Your task to perform on an android device: turn off picture-in-picture Image 0: 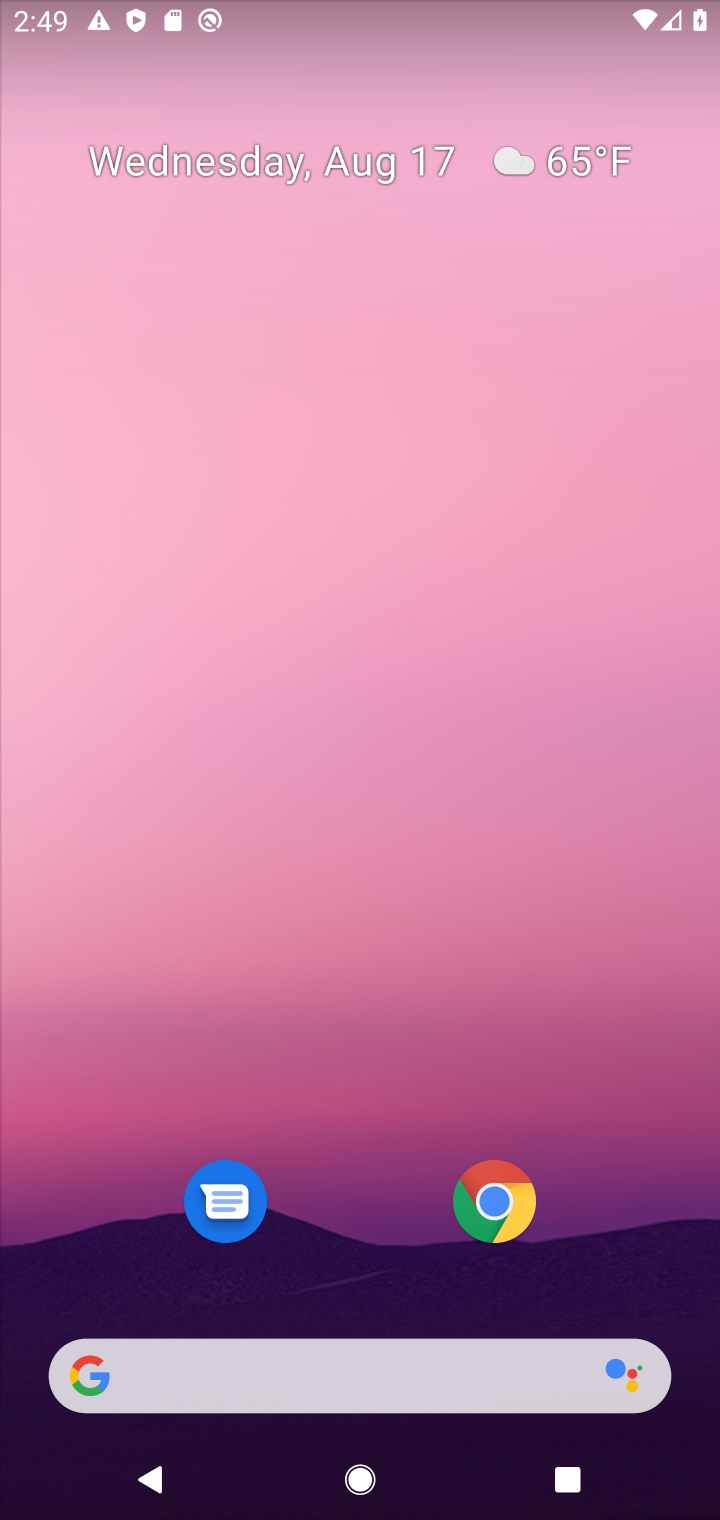
Step 0: drag from (509, 271) to (544, 42)
Your task to perform on an android device: turn off picture-in-picture Image 1: 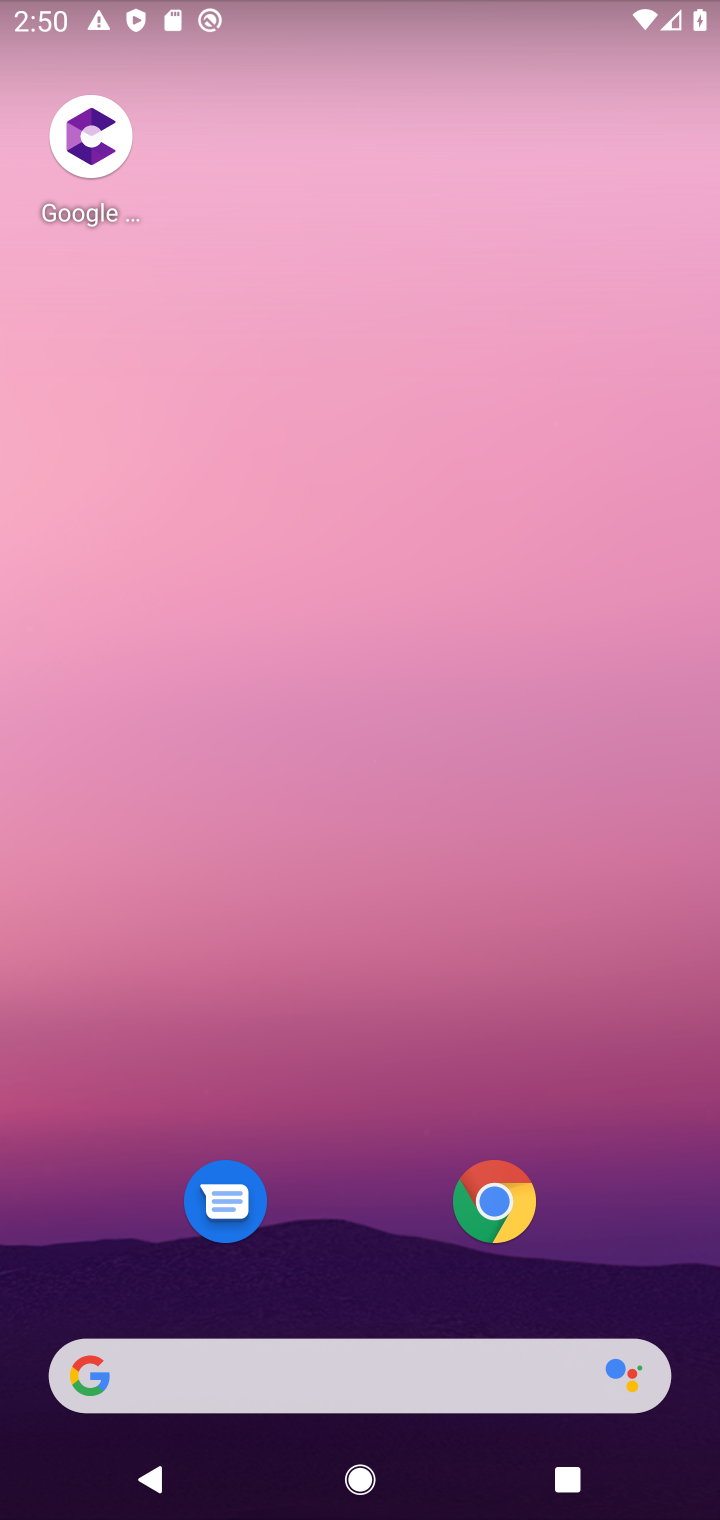
Step 1: drag from (339, 1281) to (620, 103)
Your task to perform on an android device: turn off picture-in-picture Image 2: 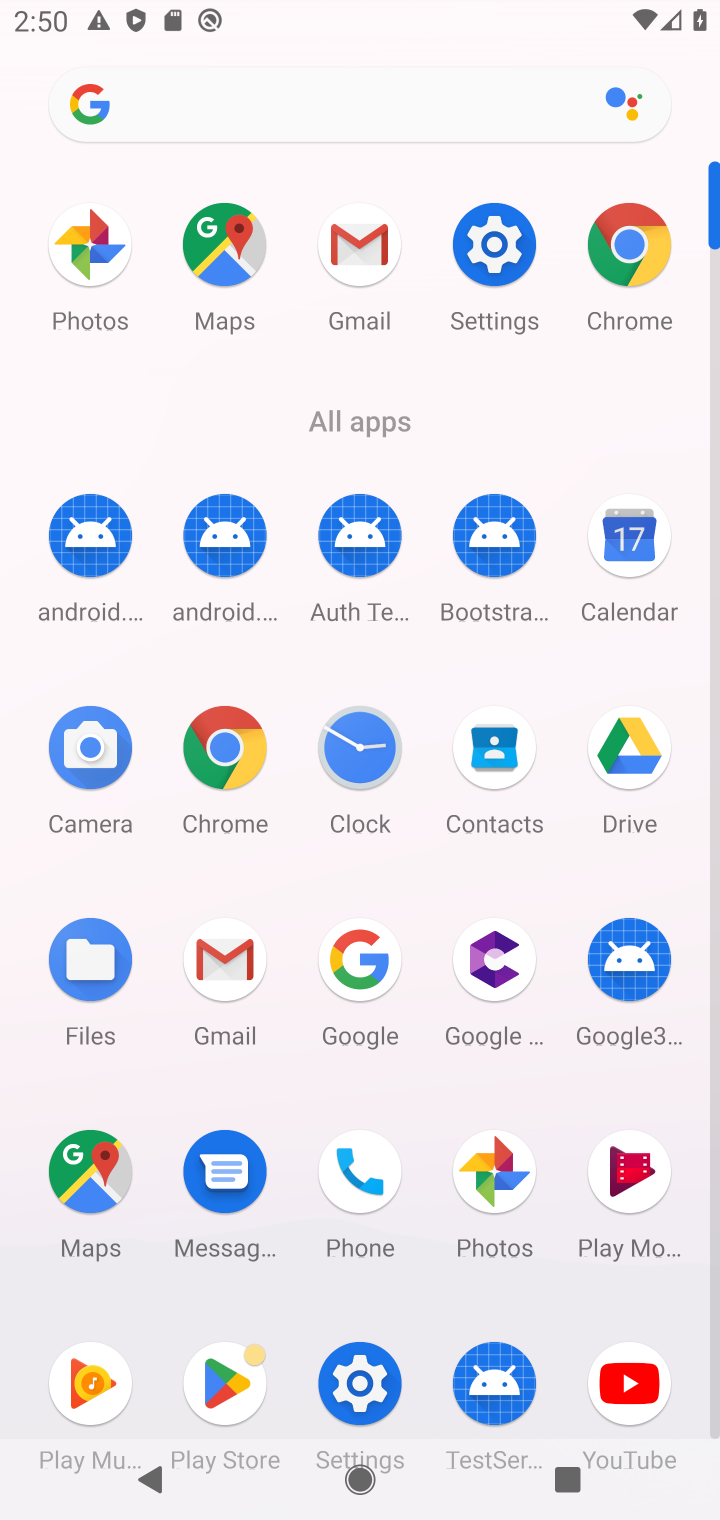
Step 2: click (507, 239)
Your task to perform on an android device: turn off picture-in-picture Image 3: 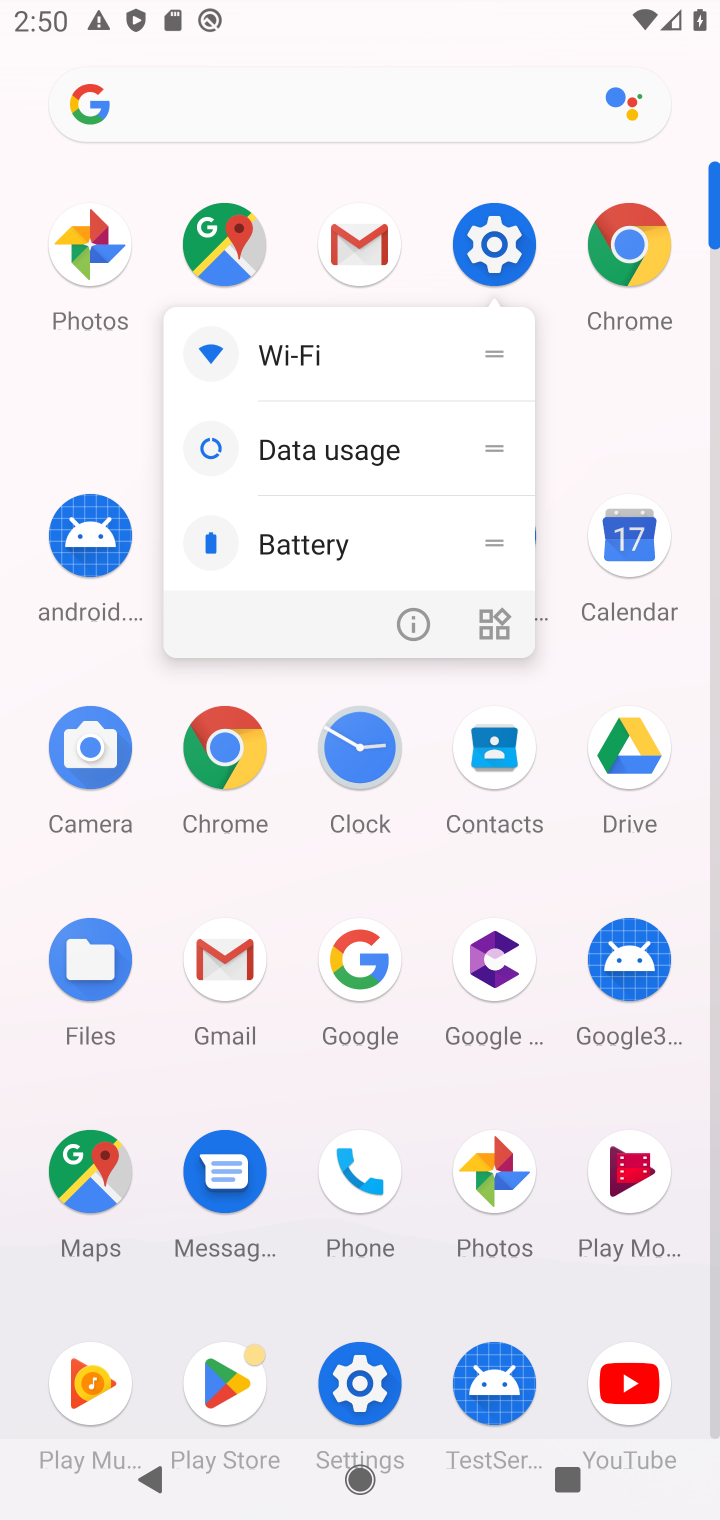
Step 3: click (491, 253)
Your task to perform on an android device: turn off picture-in-picture Image 4: 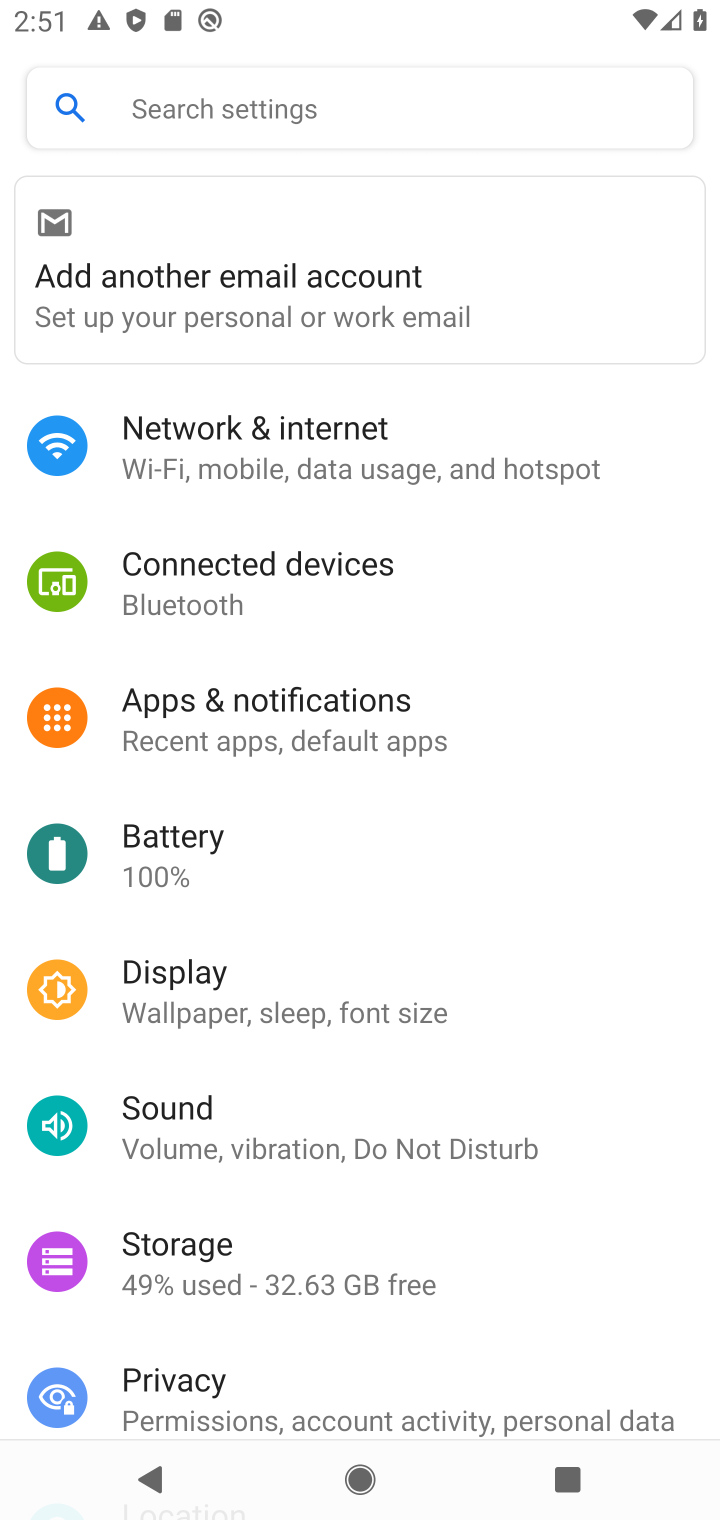
Step 4: click (363, 732)
Your task to perform on an android device: turn off picture-in-picture Image 5: 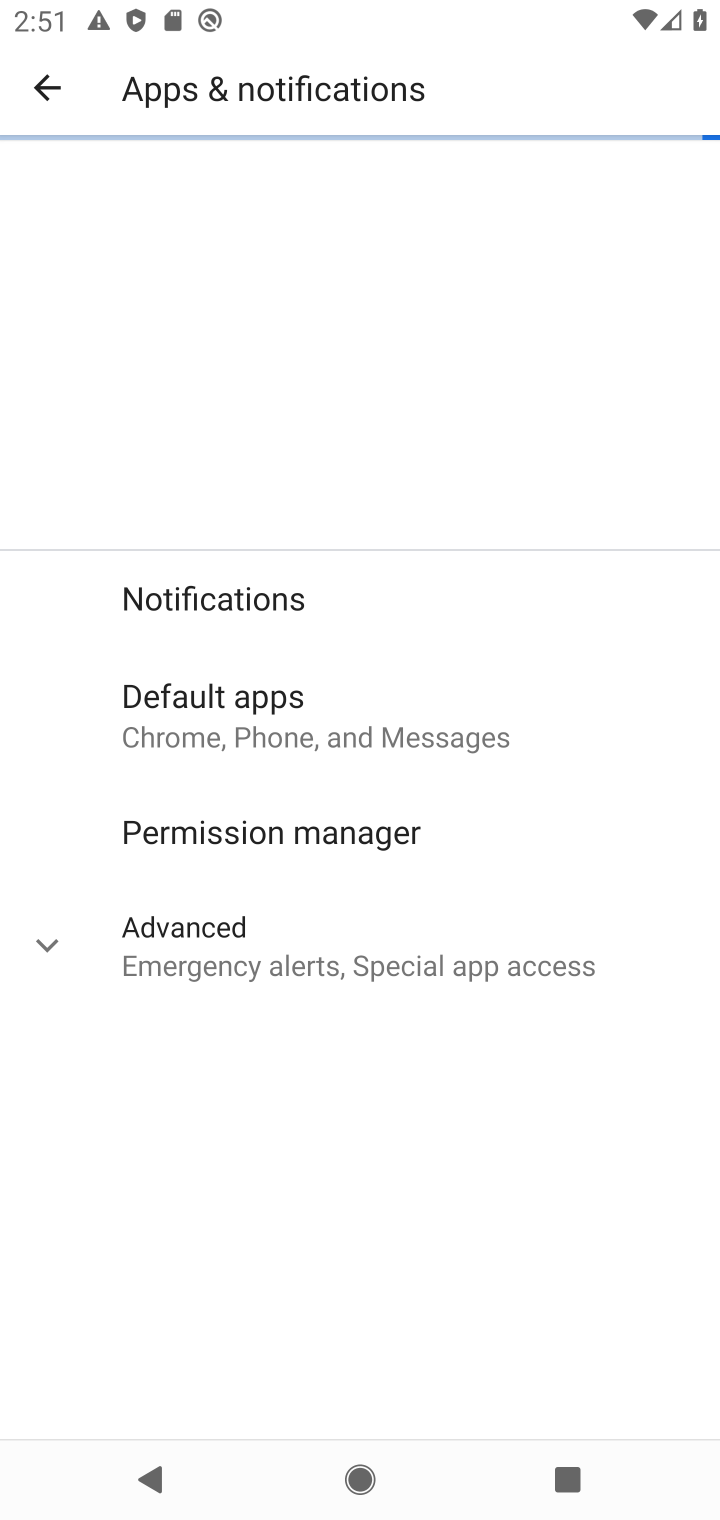
Step 5: click (231, 595)
Your task to perform on an android device: turn off picture-in-picture Image 6: 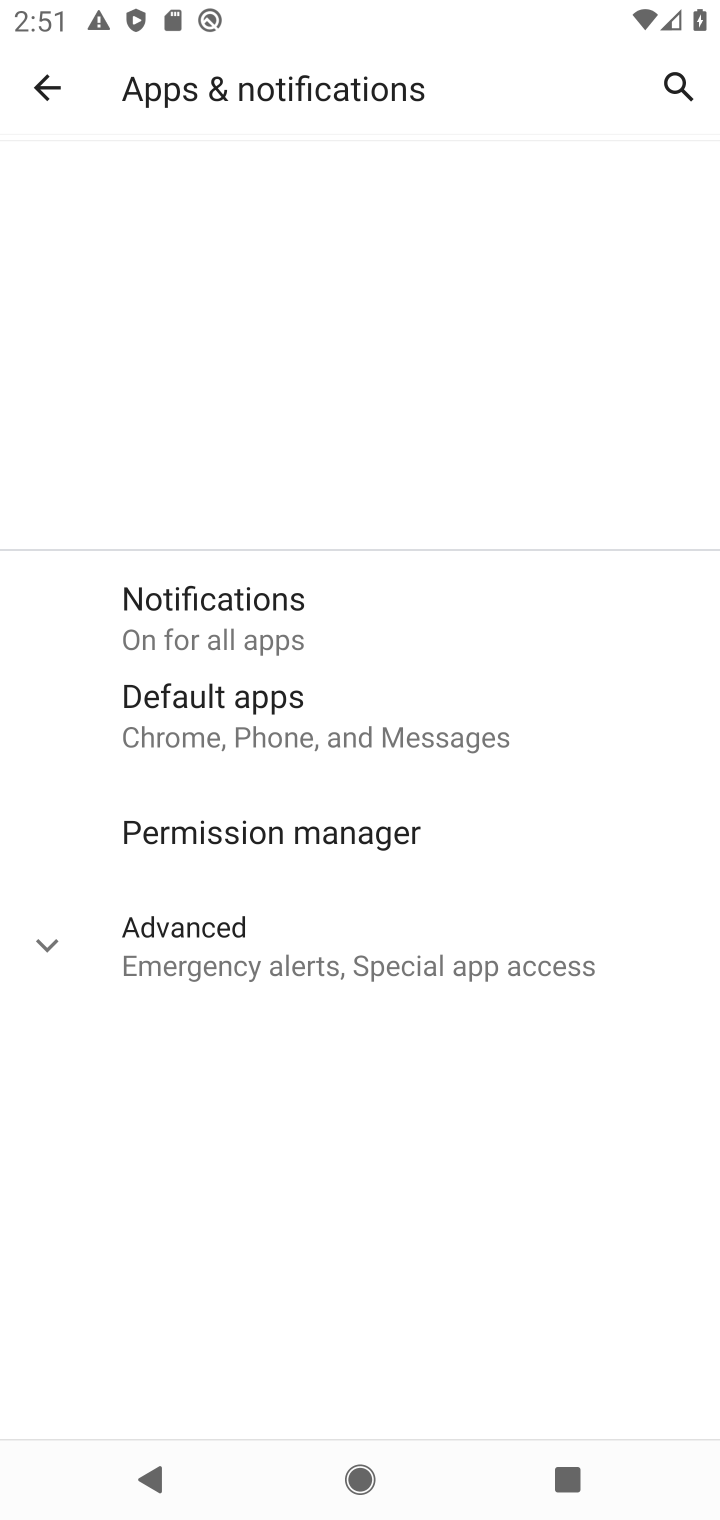
Step 6: click (361, 931)
Your task to perform on an android device: turn off picture-in-picture Image 7: 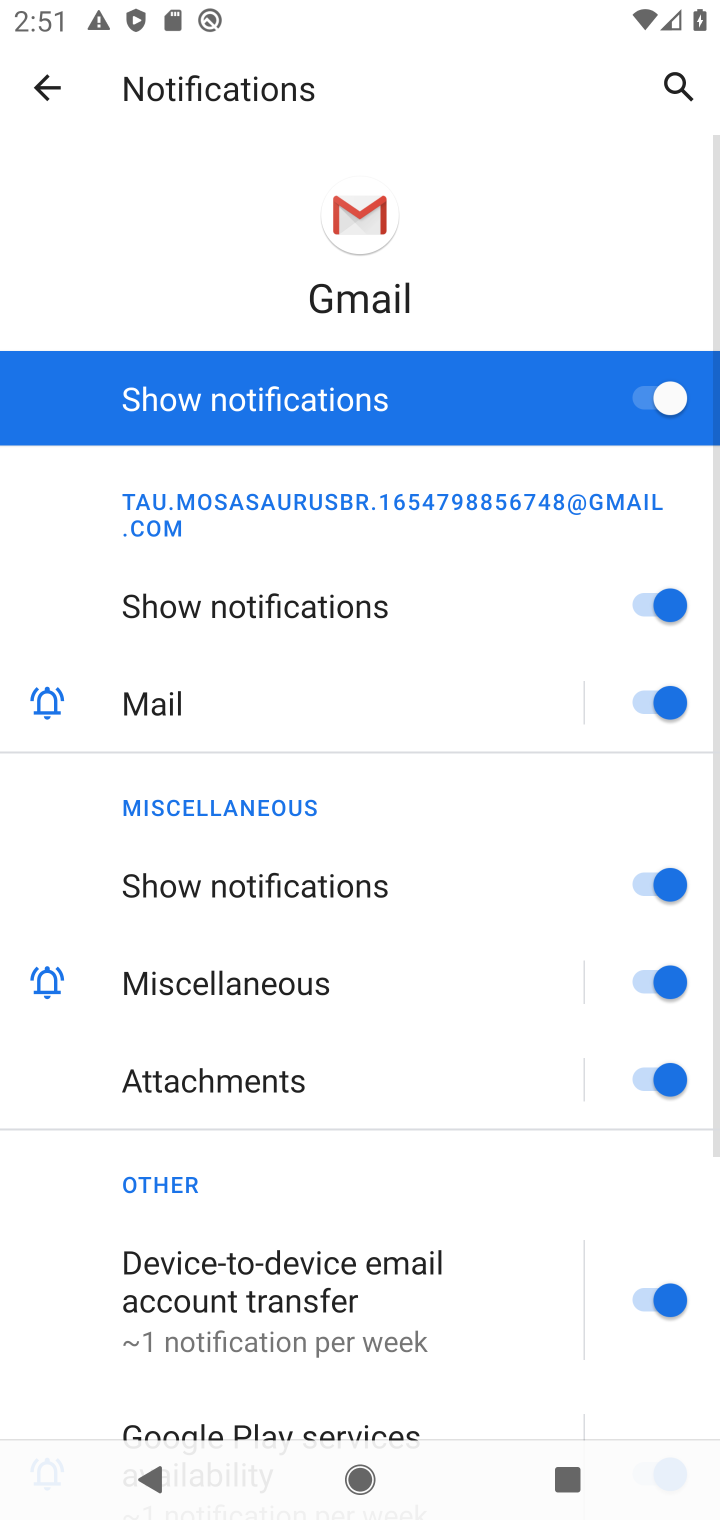
Step 7: press back button
Your task to perform on an android device: turn off picture-in-picture Image 8: 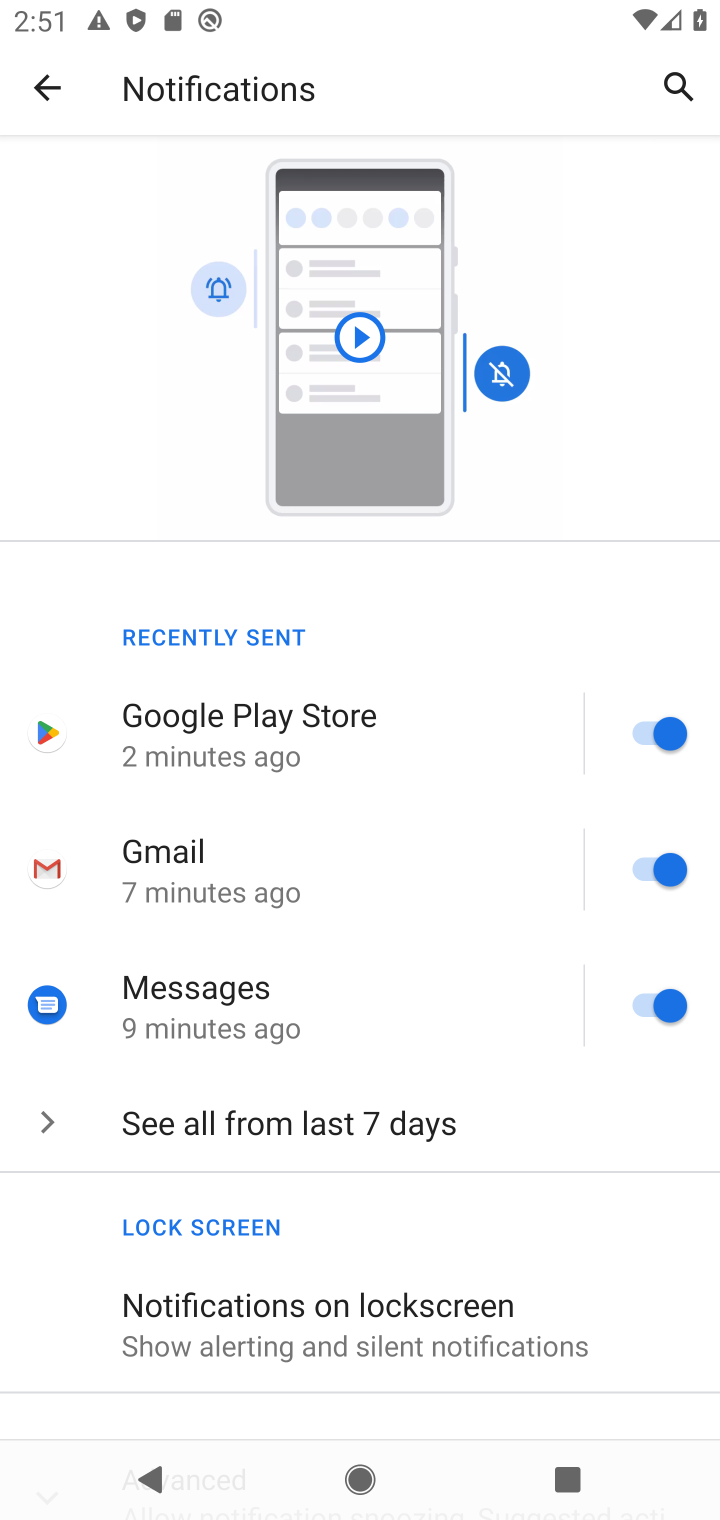
Step 8: drag from (283, 1106) to (438, 82)
Your task to perform on an android device: turn off picture-in-picture Image 9: 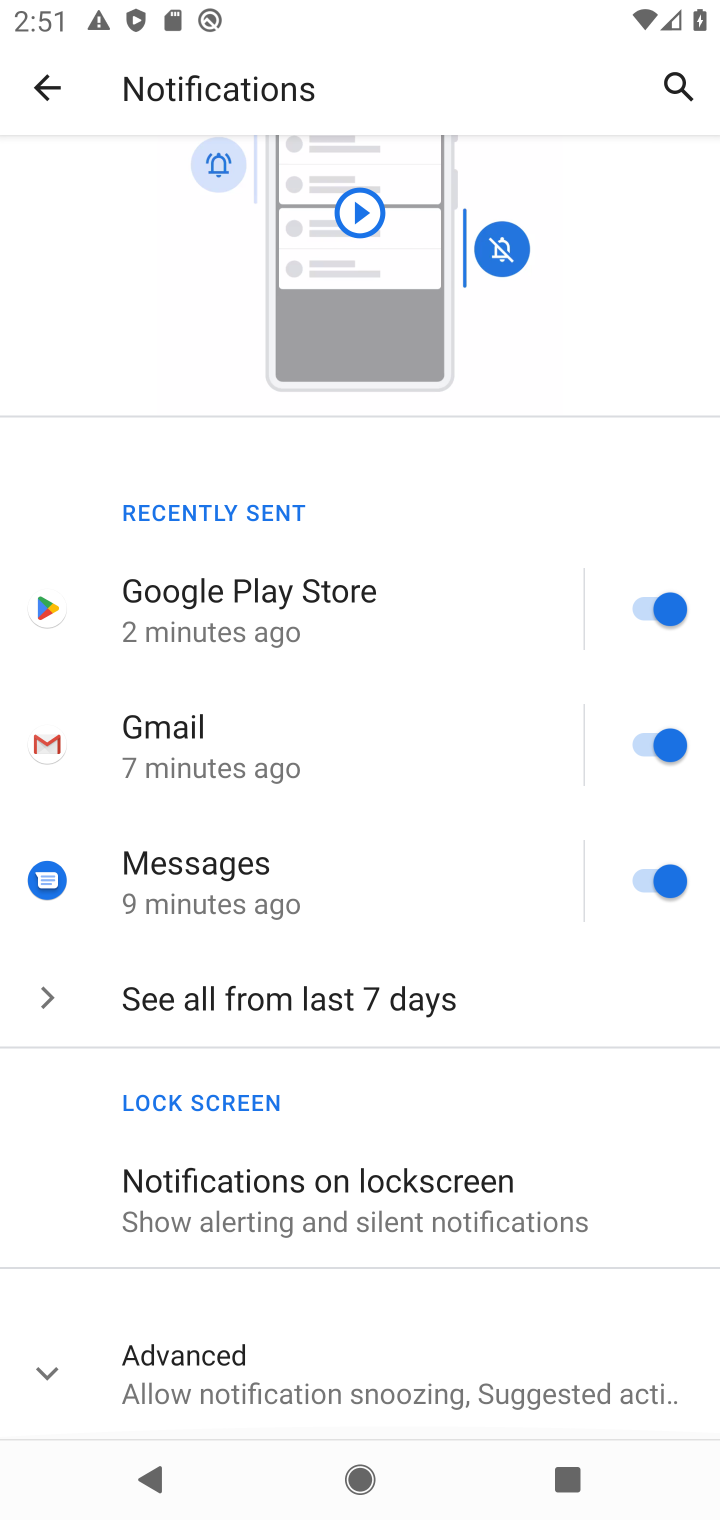
Step 9: click (364, 1371)
Your task to perform on an android device: turn off picture-in-picture Image 10: 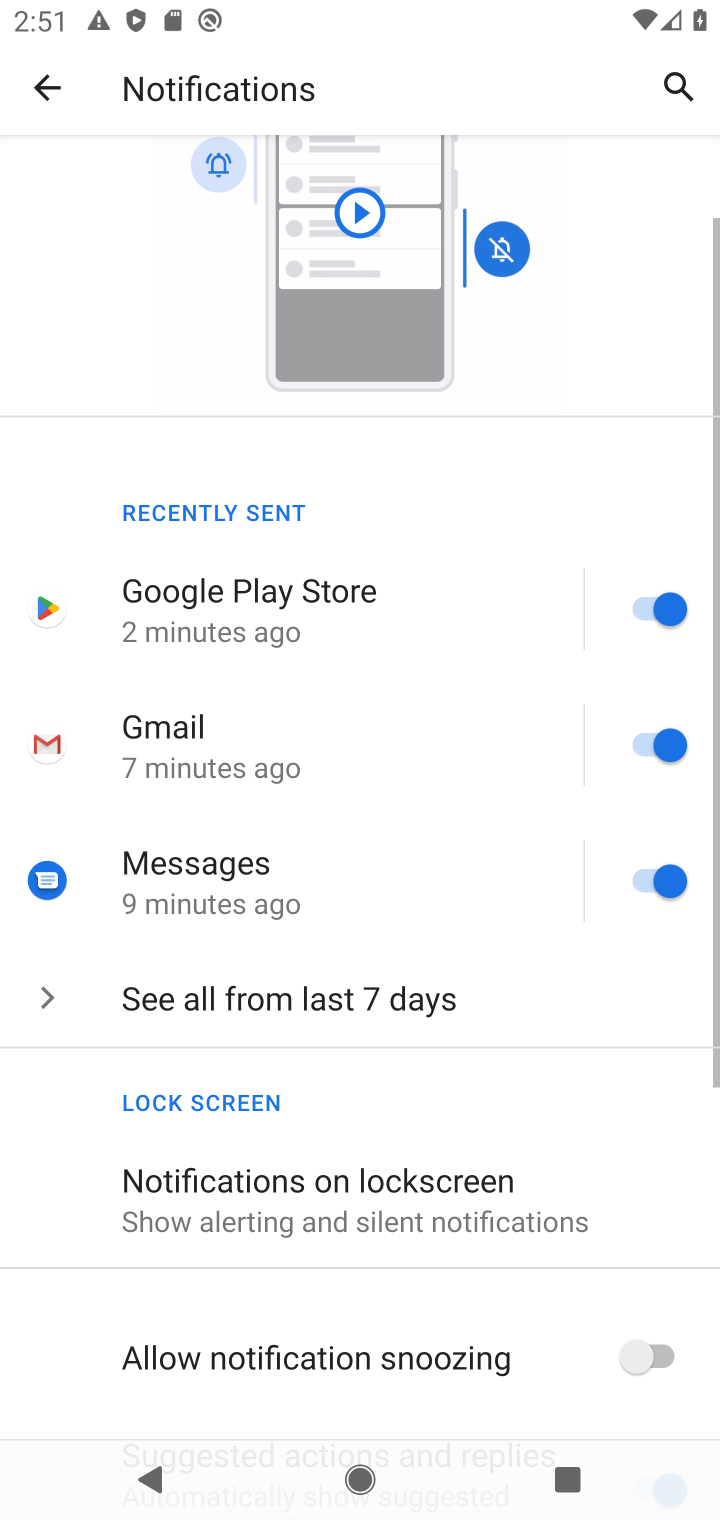
Step 10: drag from (368, 1268) to (480, 205)
Your task to perform on an android device: turn off picture-in-picture Image 11: 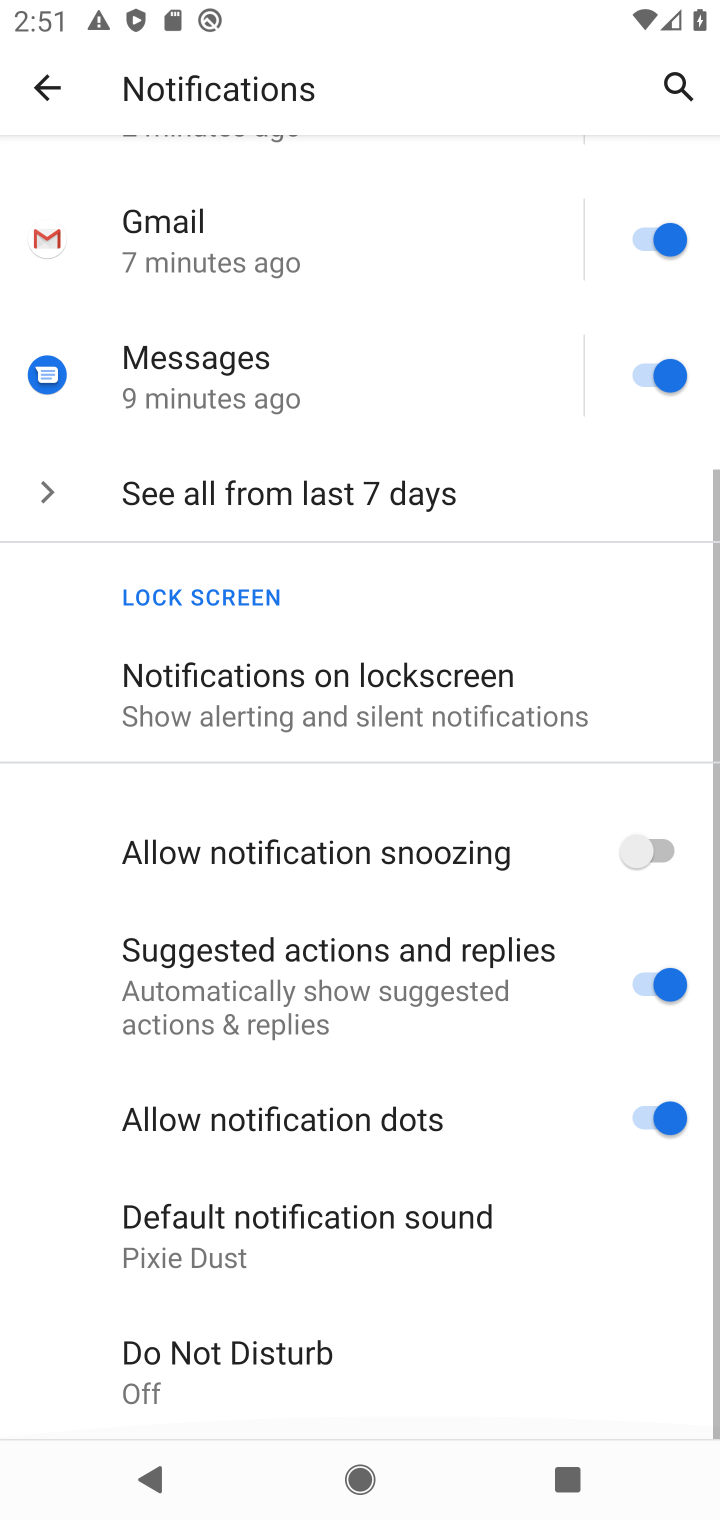
Step 11: drag from (399, 1232) to (505, 52)
Your task to perform on an android device: turn off picture-in-picture Image 12: 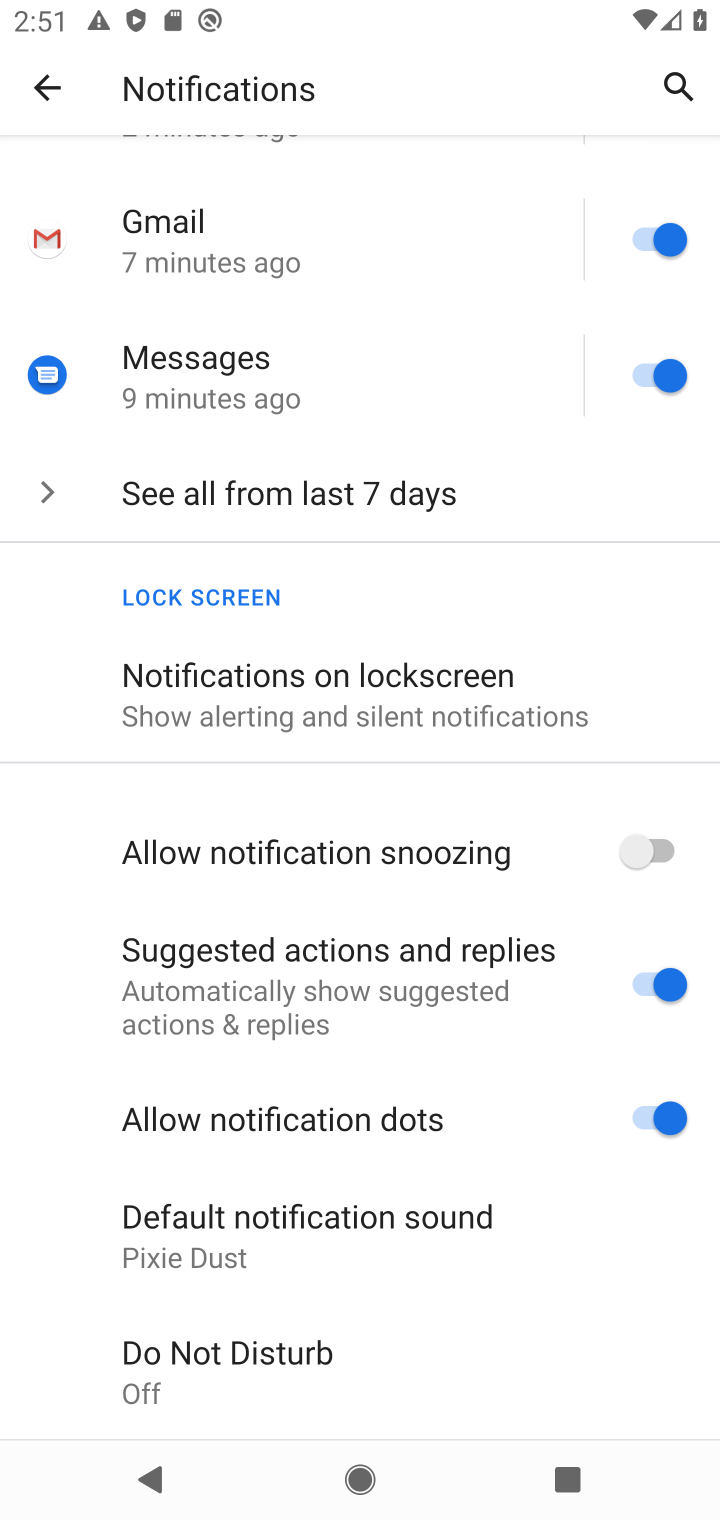
Step 12: press back button
Your task to perform on an android device: turn off picture-in-picture Image 13: 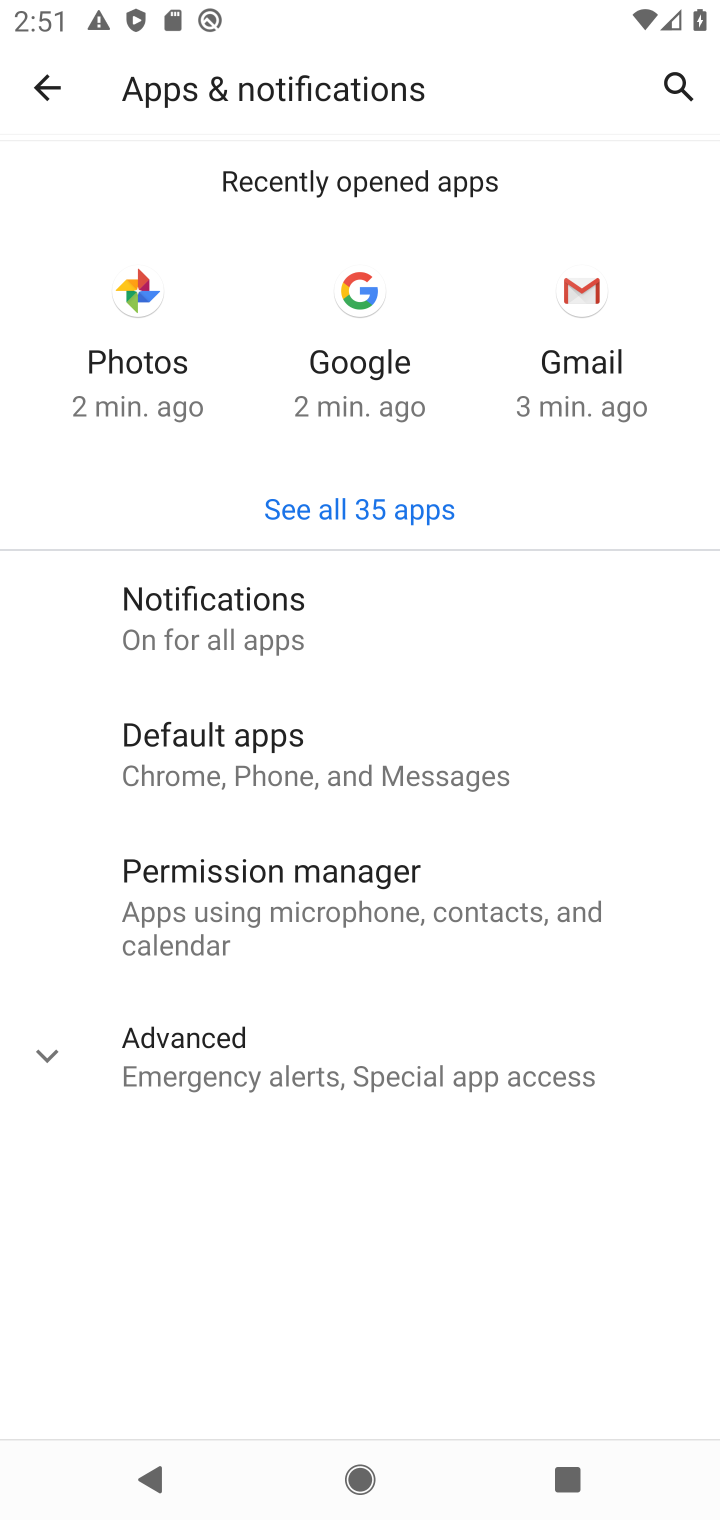
Step 13: click (239, 1105)
Your task to perform on an android device: turn off picture-in-picture Image 14: 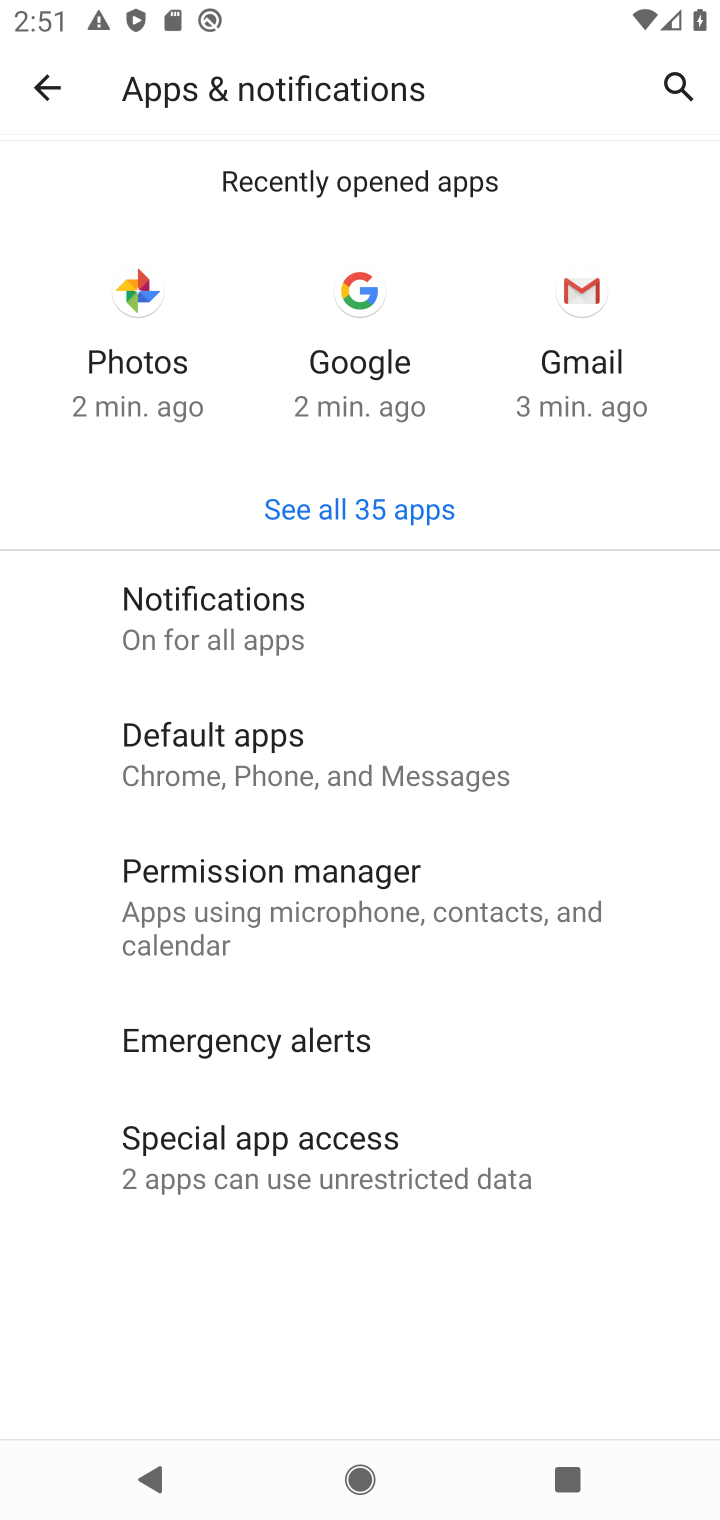
Step 14: click (249, 1129)
Your task to perform on an android device: turn off picture-in-picture Image 15: 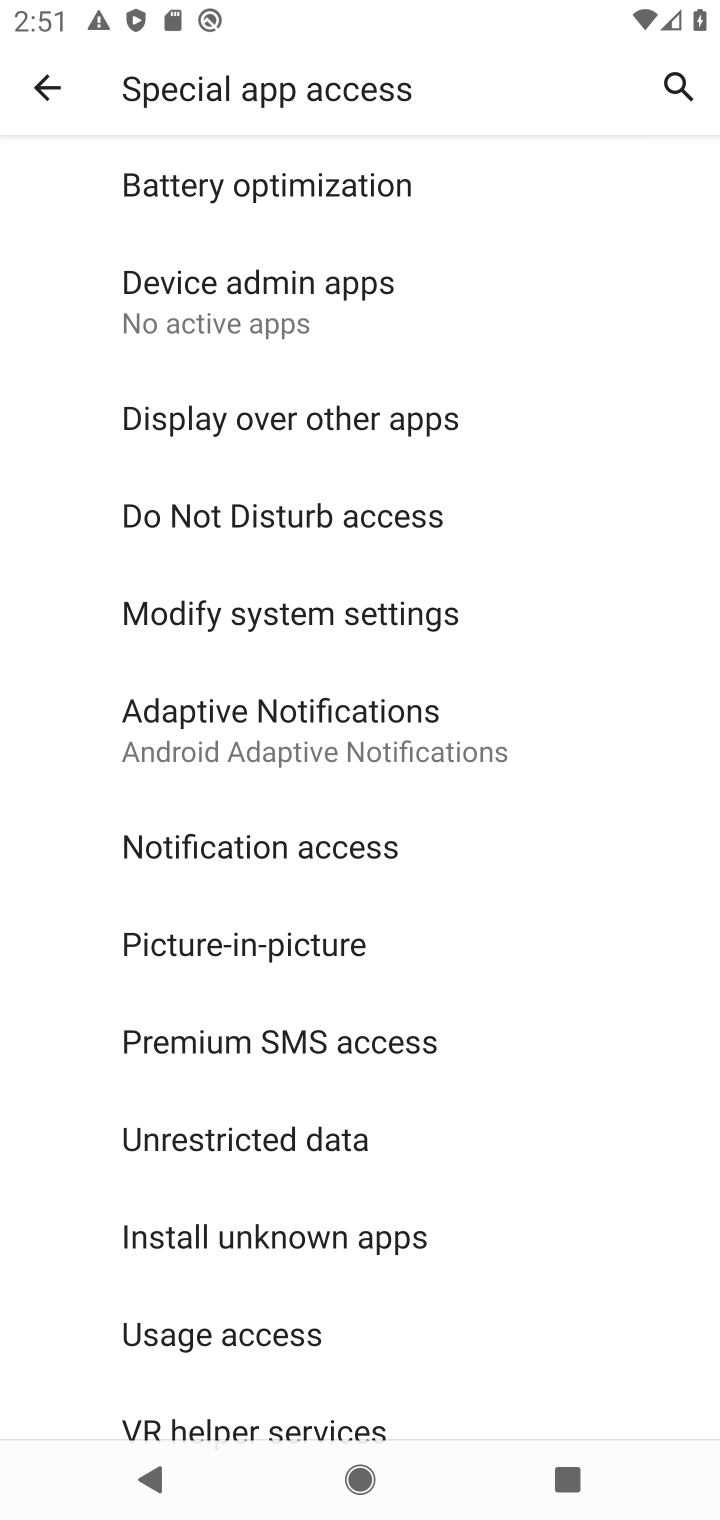
Step 15: click (257, 934)
Your task to perform on an android device: turn off picture-in-picture Image 16: 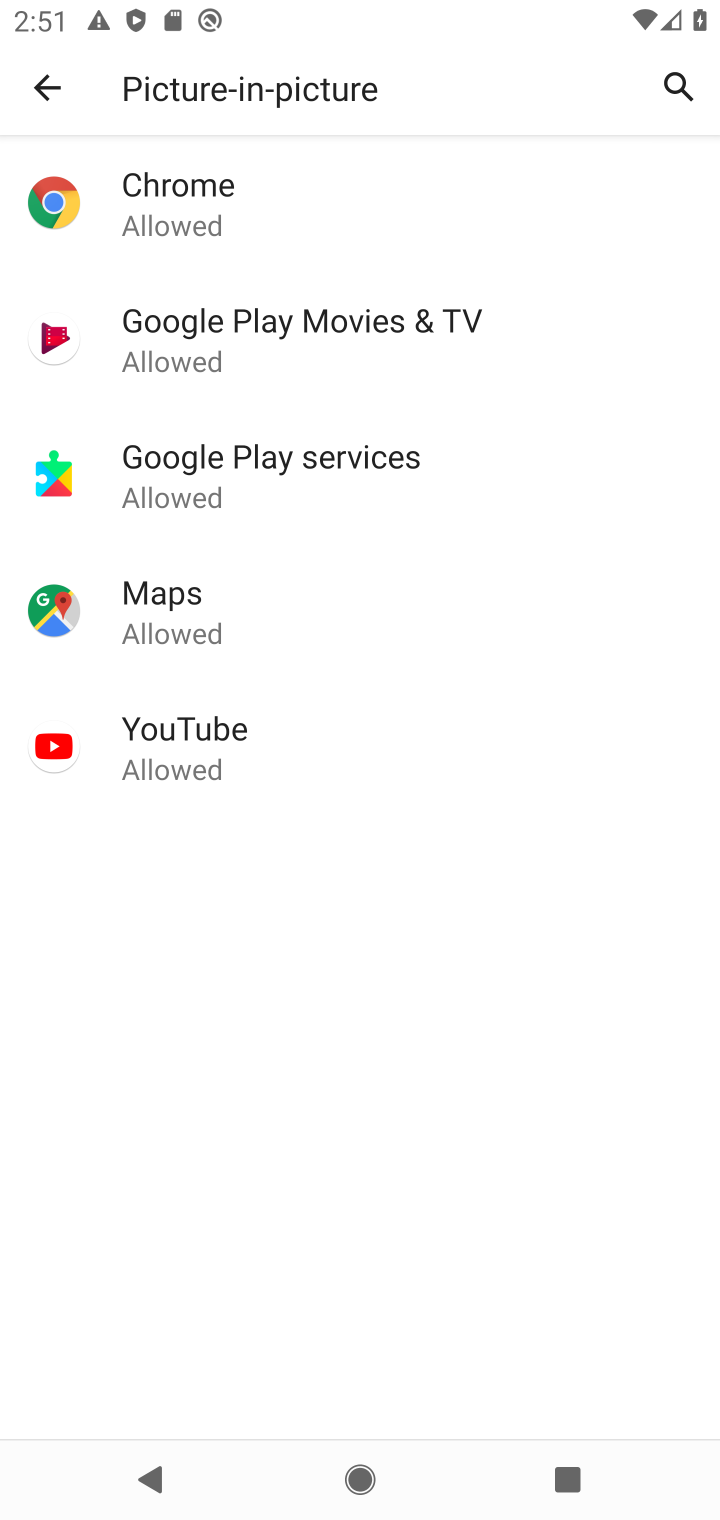
Step 16: click (186, 201)
Your task to perform on an android device: turn off picture-in-picture Image 17: 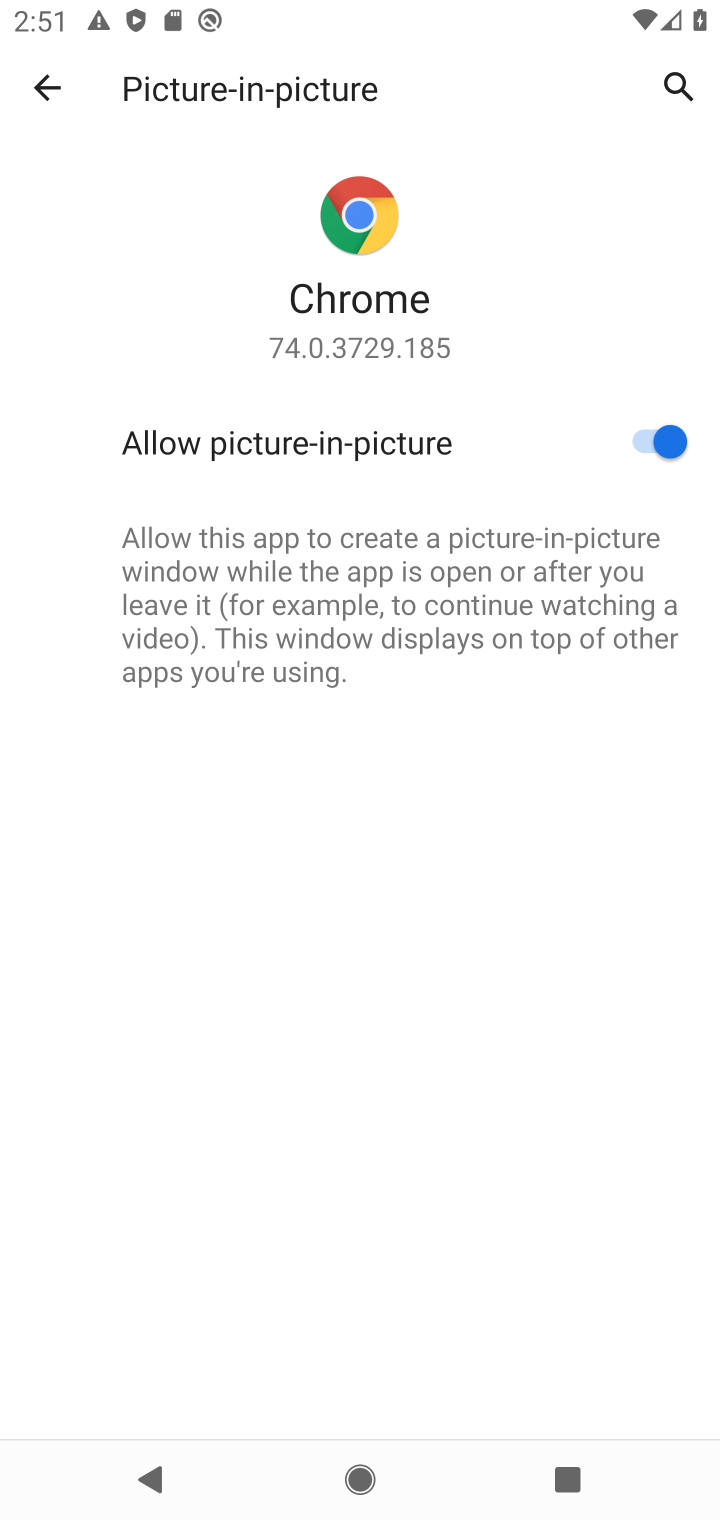
Step 17: click (671, 440)
Your task to perform on an android device: turn off picture-in-picture Image 18: 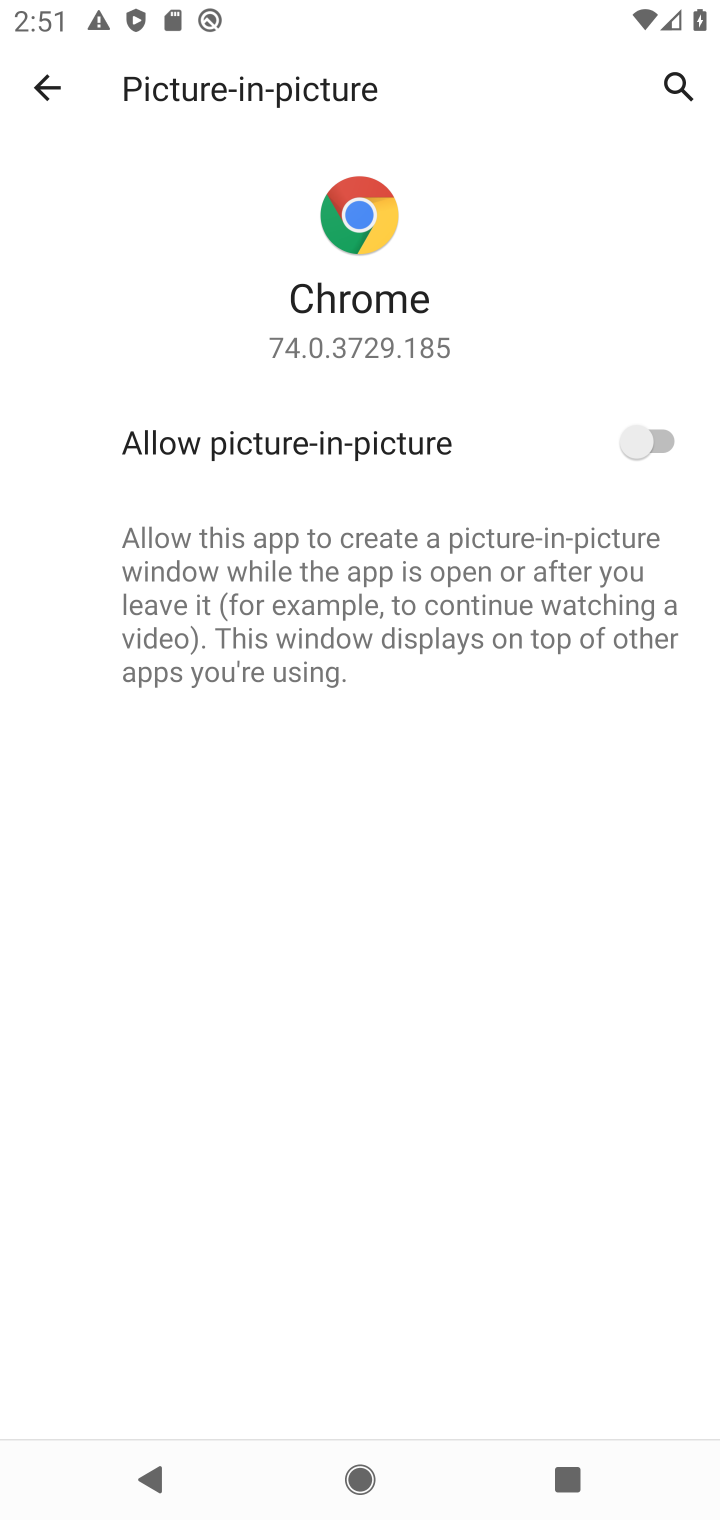
Step 18: task complete